Your task to perform on an android device: Open Google Maps Image 0: 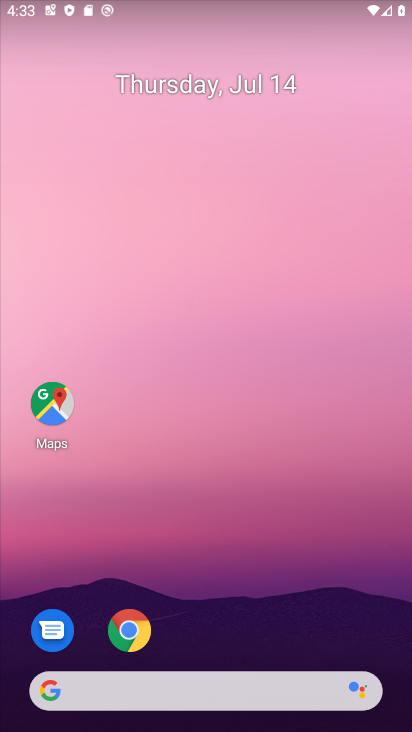
Step 0: click (59, 403)
Your task to perform on an android device: Open Google Maps Image 1: 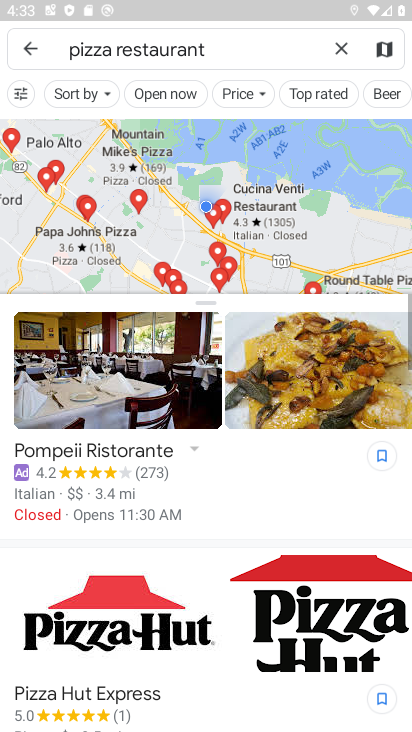
Step 1: click (37, 56)
Your task to perform on an android device: Open Google Maps Image 2: 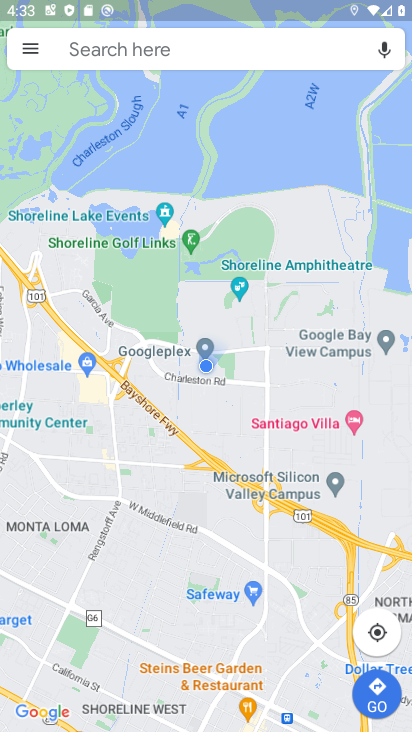
Step 2: task complete